Your task to perform on an android device: Open ESPN.com Image 0: 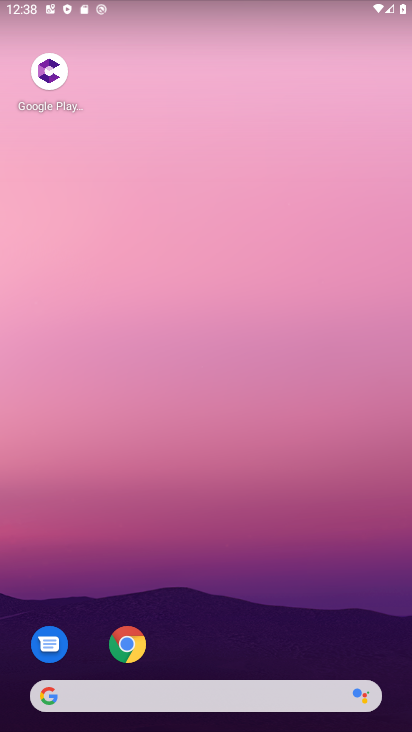
Step 0: click (127, 655)
Your task to perform on an android device: Open ESPN.com Image 1: 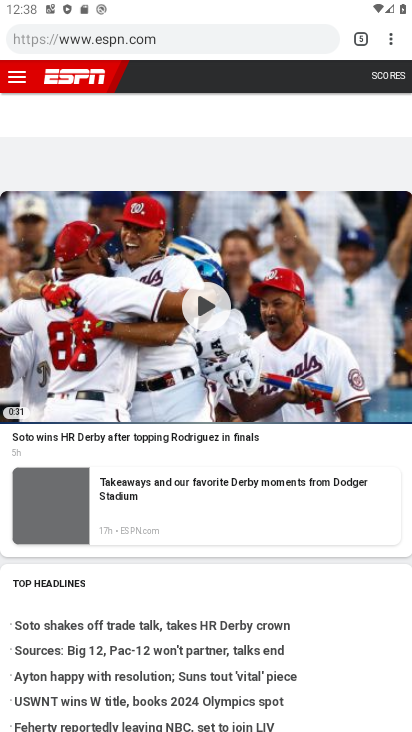
Step 1: task complete